Your task to perform on an android device: see sites visited before in the chrome app Image 0: 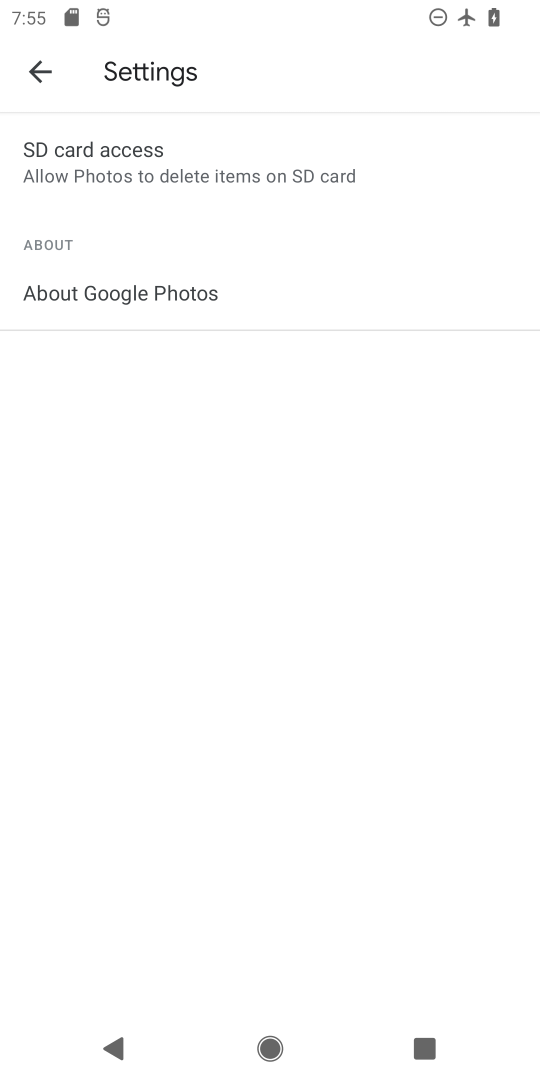
Step 0: click (19, 83)
Your task to perform on an android device: see sites visited before in the chrome app Image 1: 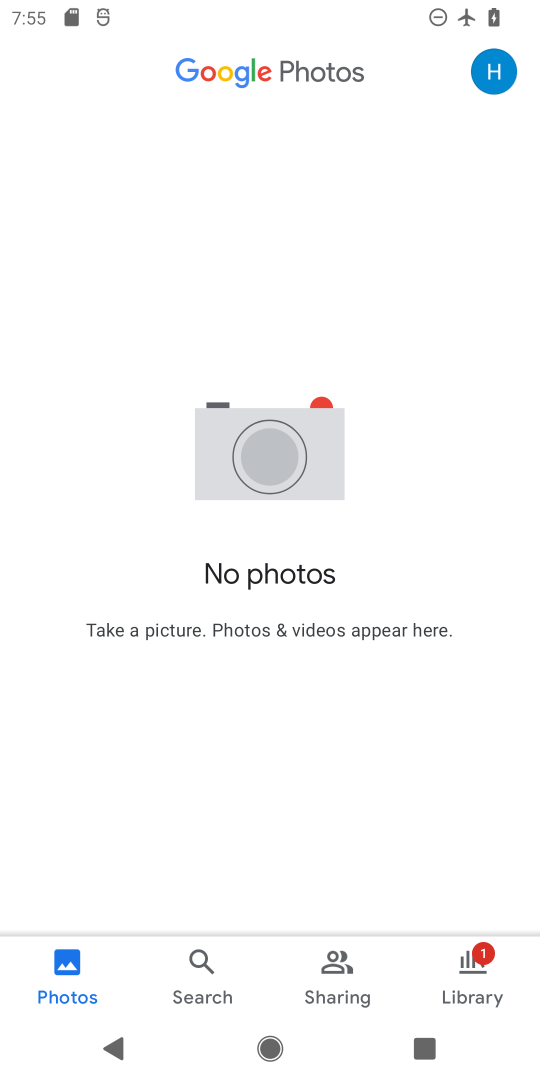
Step 1: press home button
Your task to perform on an android device: see sites visited before in the chrome app Image 2: 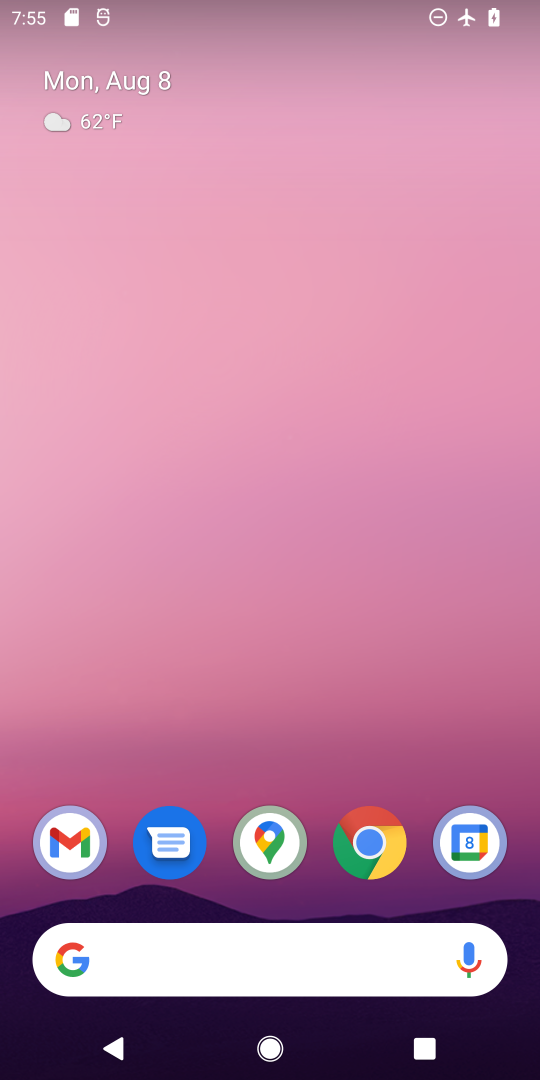
Step 2: click (382, 857)
Your task to perform on an android device: see sites visited before in the chrome app Image 3: 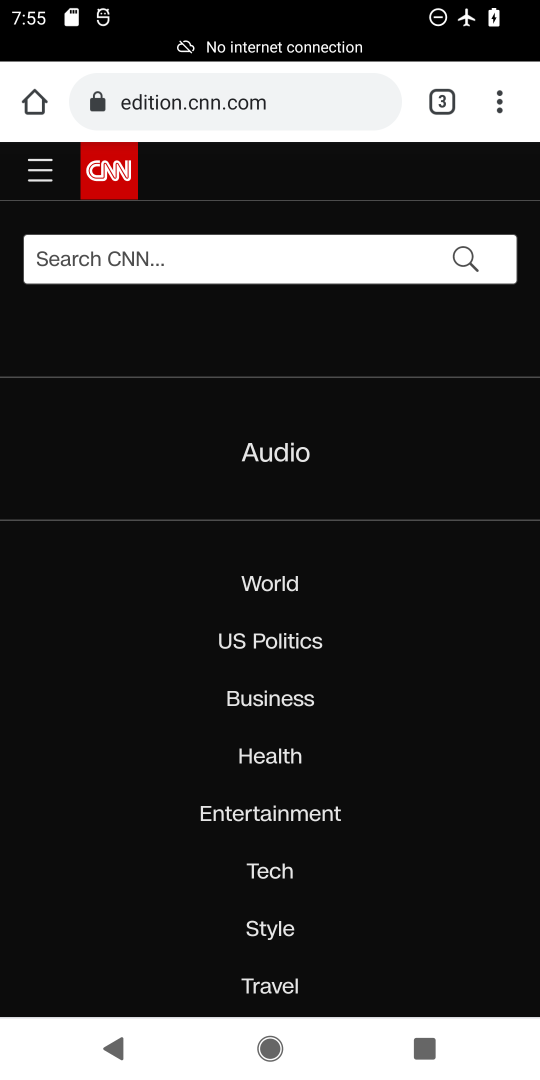
Step 3: click (450, 104)
Your task to perform on an android device: see sites visited before in the chrome app Image 4: 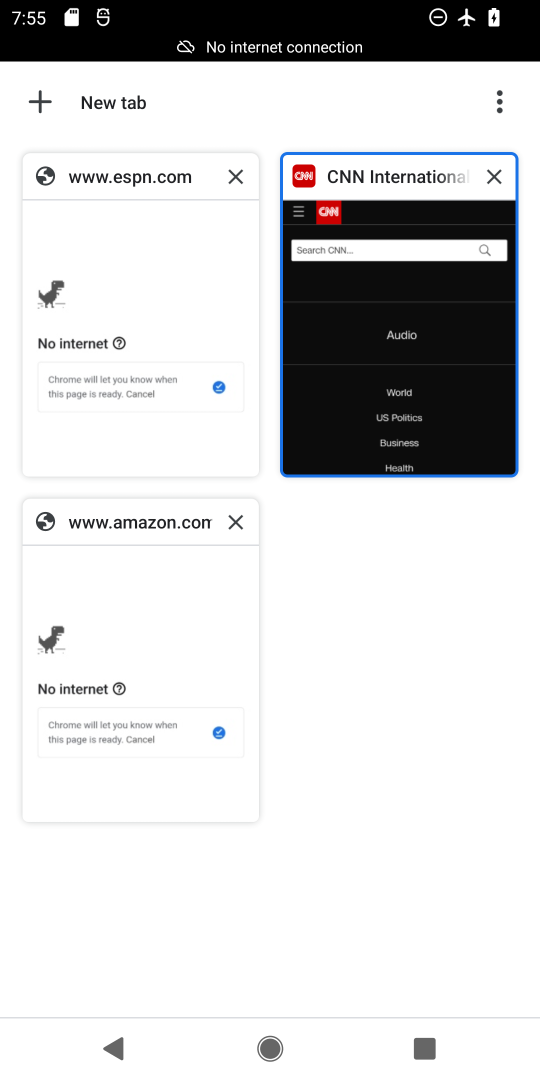
Step 4: task complete